Your task to perform on an android device: Go to display settings Image 0: 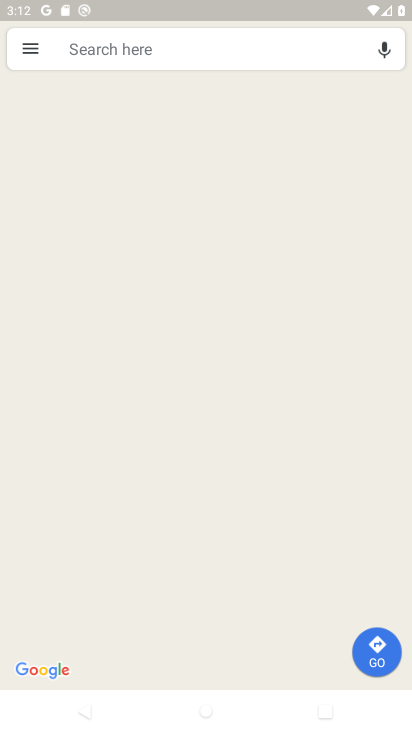
Step 0: drag from (213, 560) to (225, 119)
Your task to perform on an android device: Go to display settings Image 1: 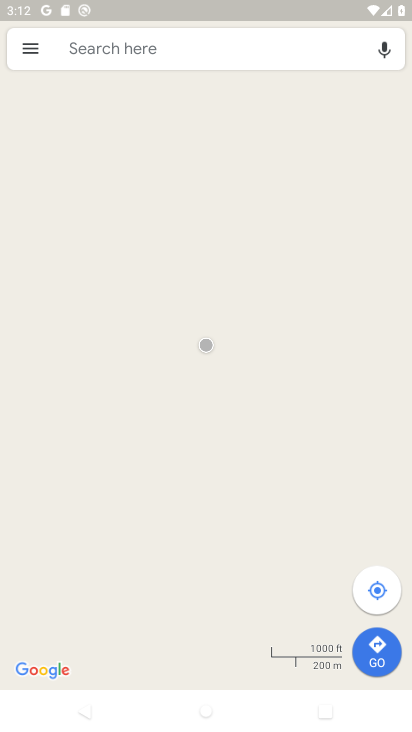
Step 1: press home button
Your task to perform on an android device: Go to display settings Image 2: 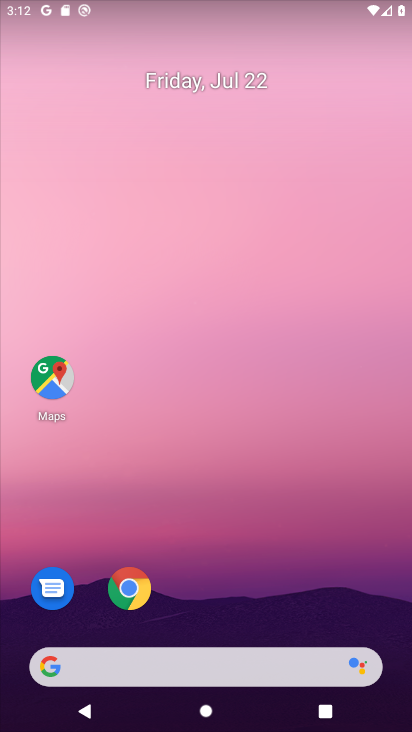
Step 2: drag from (183, 609) to (223, 76)
Your task to perform on an android device: Go to display settings Image 3: 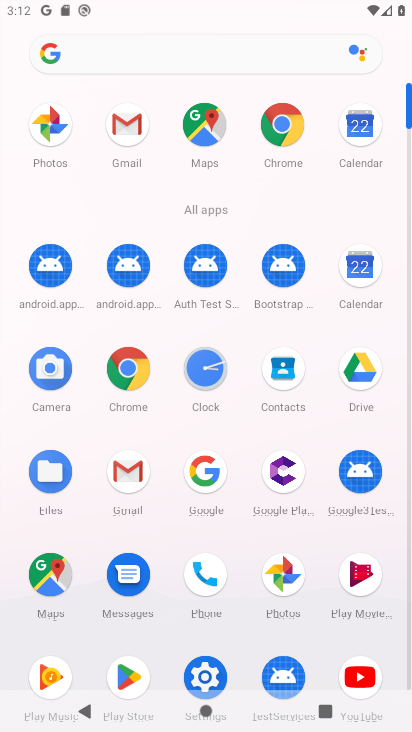
Step 3: click (206, 675)
Your task to perform on an android device: Go to display settings Image 4: 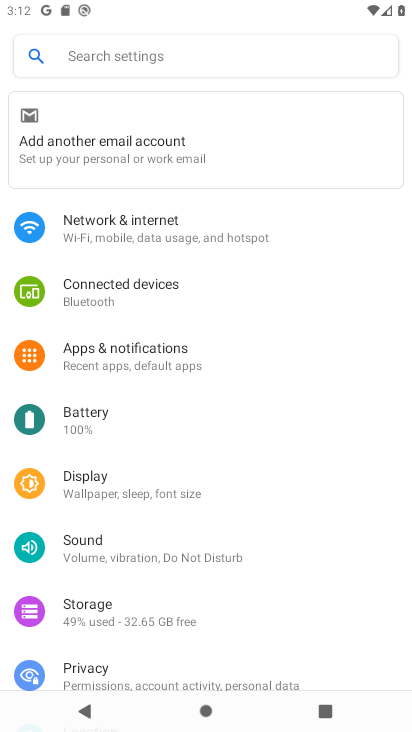
Step 4: drag from (151, 523) to (195, 174)
Your task to perform on an android device: Go to display settings Image 5: 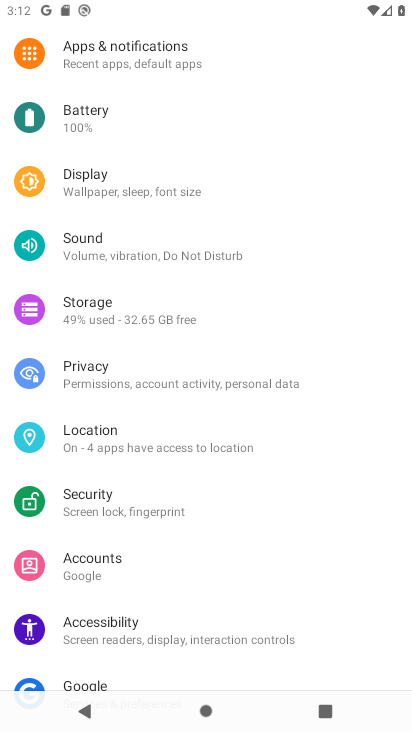
Step 5: click (95, 175)
Your task to perform on an android device: Go to display settings Image 6: 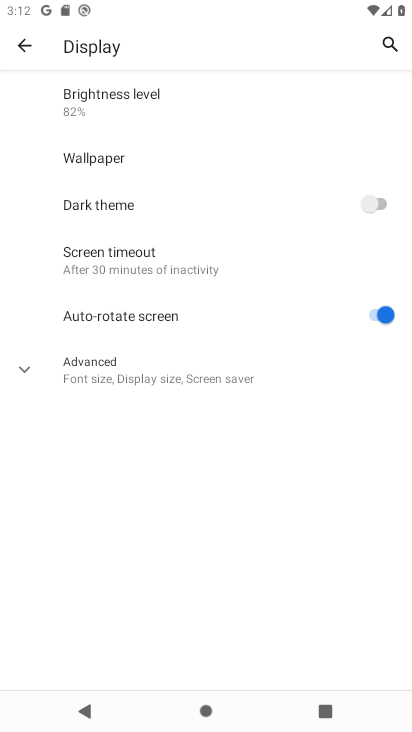
Step 6: task complete